Your task to perform on an android device: turn on priority inbox in the gmail app Image 0: 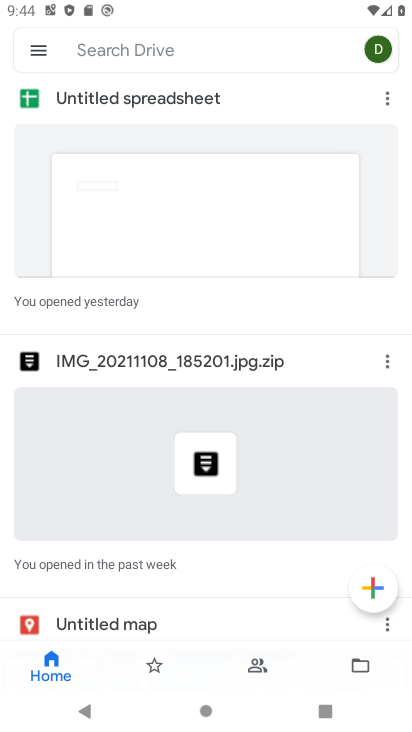
Step 0: press home button
Your task to perform on an android device: turn on priority inbox in the gmail app Image 1: 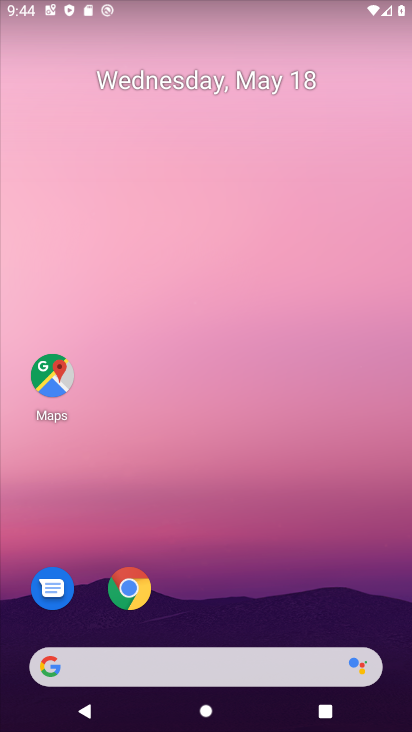
Step 1: drag from (203, 695) to (153, 223)
Your task to perform on an android device: turn on priority inbox in the gmail app Image 2: 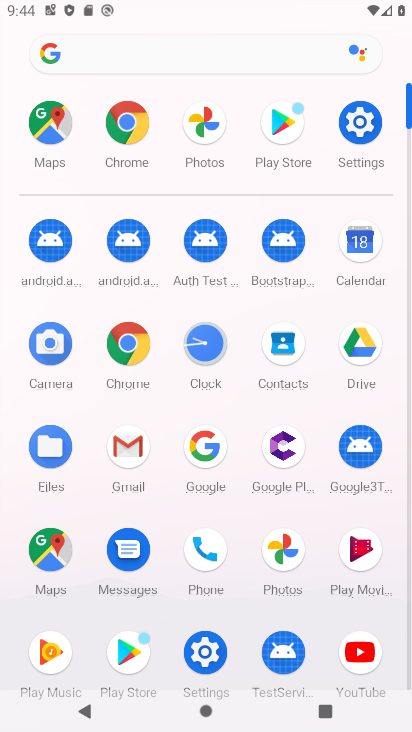
Step 2: click (141, 449)
Your task to perform on an android device: turn on priority inbox in the gmail app Image 3: 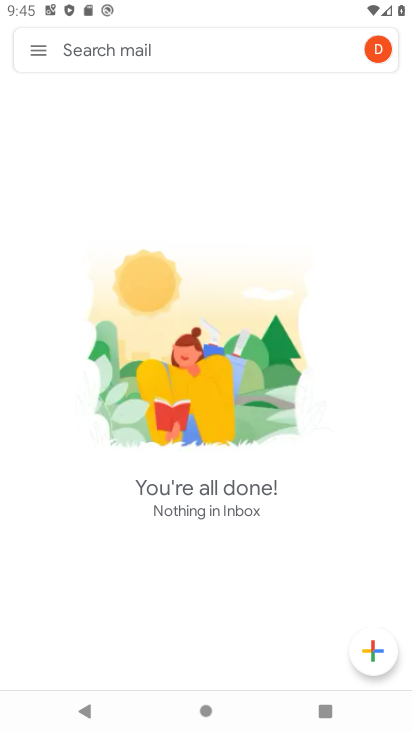
Step 3: click (40, 45)
Your task to perform on an android device: turn on priority inbox in the gmail app Image 4: 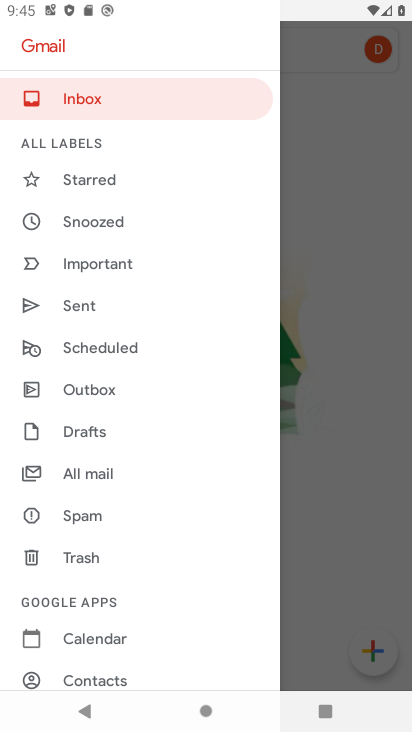
Step 4: drag from (98, 577) to (124, 444)
Your task to perform on an android device: turn on priority inbox in the gmail app Image 5: 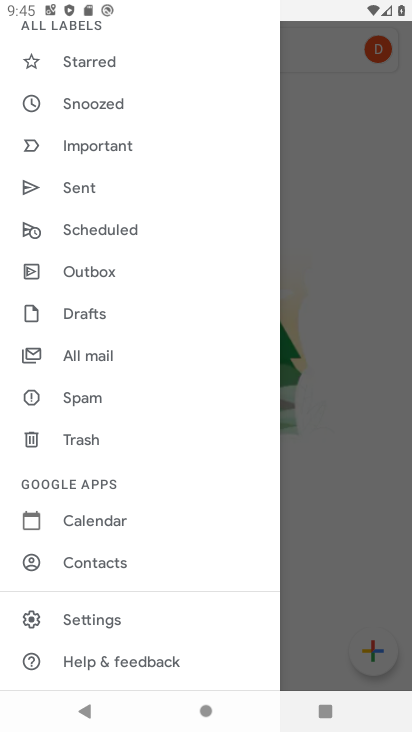
Step 5: click (81, 624)
Your task to perform on an android device: turn on priority inbox in the gmail app Image 6: 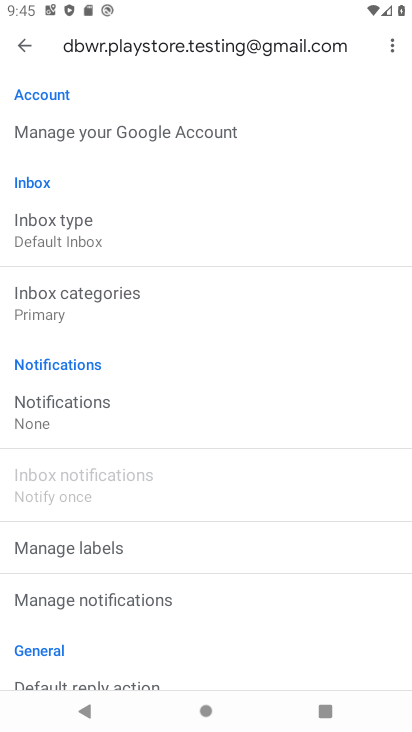
Step 6: click (97, 238)
Your task to perform on an android device: turn on priority inbox in the gmail app Image 7: 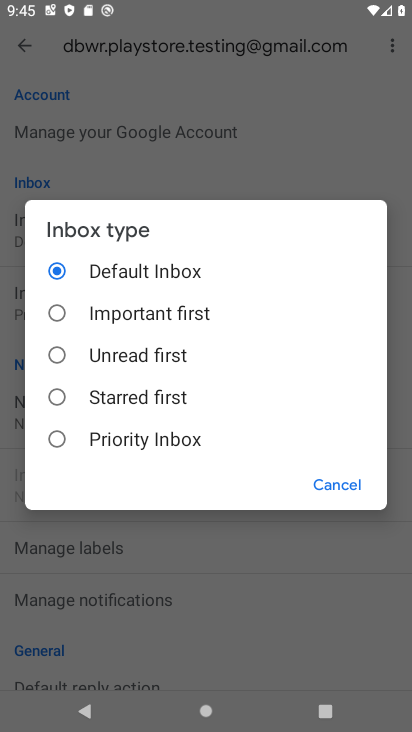
Step 7: click (140, 445)
Your task to perform on an android device: turn on priority inbox in the gmail app Image 8: 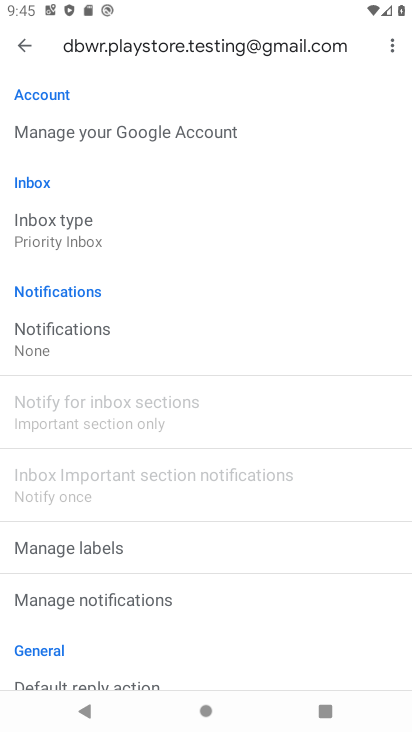
Step 8: task complete